Your task to perform on an android device: open sync settings in chrome Image 0: 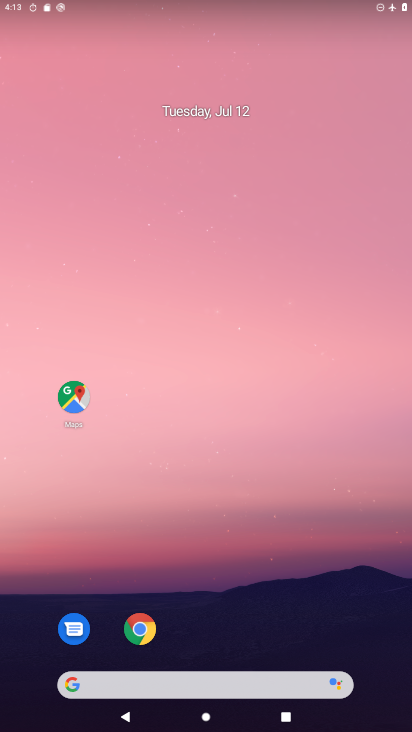
Step 0: press home button
Your task to perform on an android device: open sync settings in chrome Image 1: 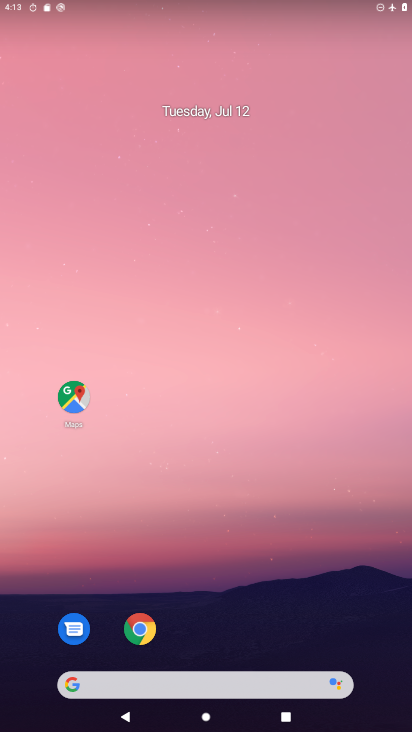
Step 1: click (151, 639)
Your task to perform on an android device: open sync settings in chrome Image 2: 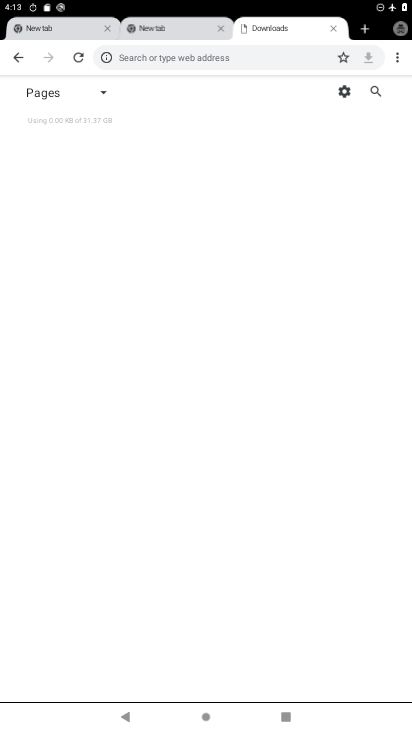
Step 2: drag from (398, 45) to (283, 276)
Your task to perform on an android device: open sync settings in chrome Image 3: 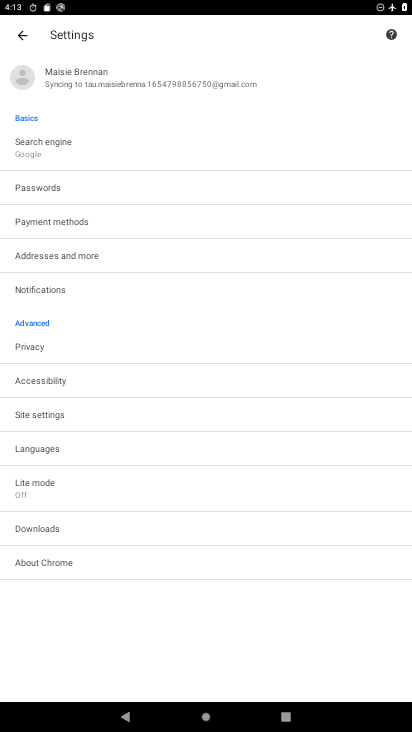
Step 3: click (95, 84)
Your task to perform on an android device: open sync settings in chrome Image 4: 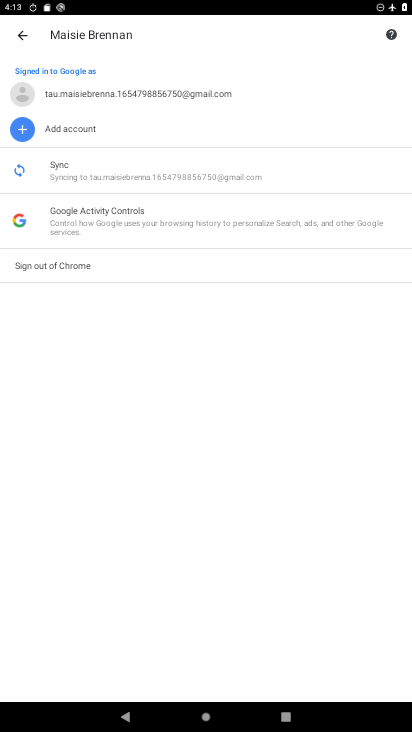
Step 4: click (87, 175)
Your task to perform on an android device: open sync settings in chrome Image 5: 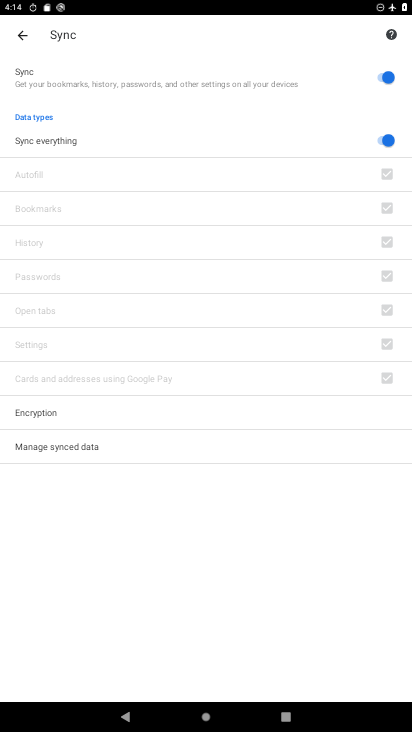
Step 5: task complete